Your task to perform on an android device: make emails show in primary in the gmail app Image 0: 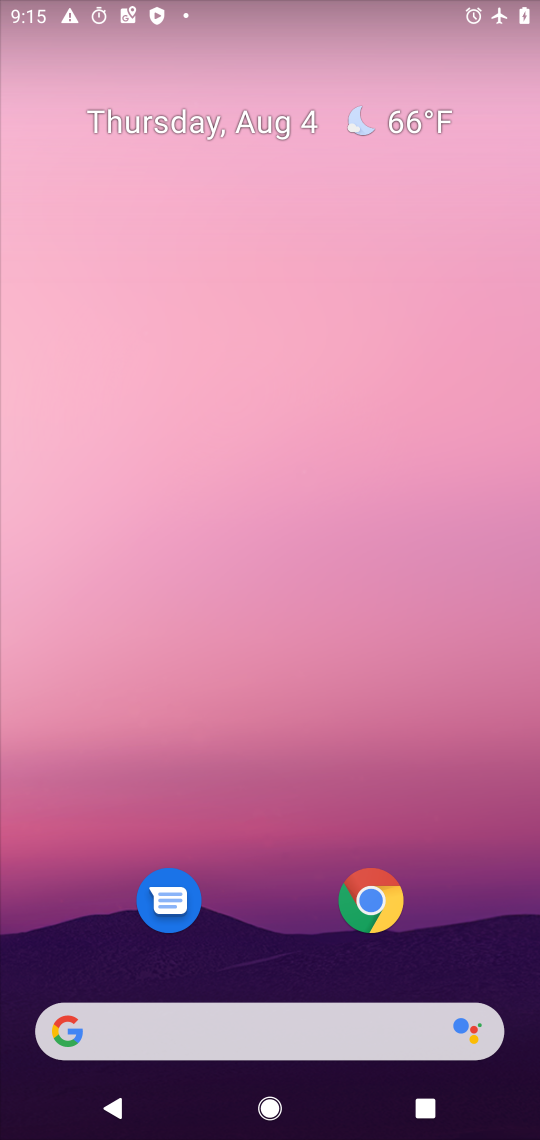
Step 0: drag from (251, 1022) to (284, 31)
Your task to perform on an android device: make emails show in primary in the gmail app Image 1: 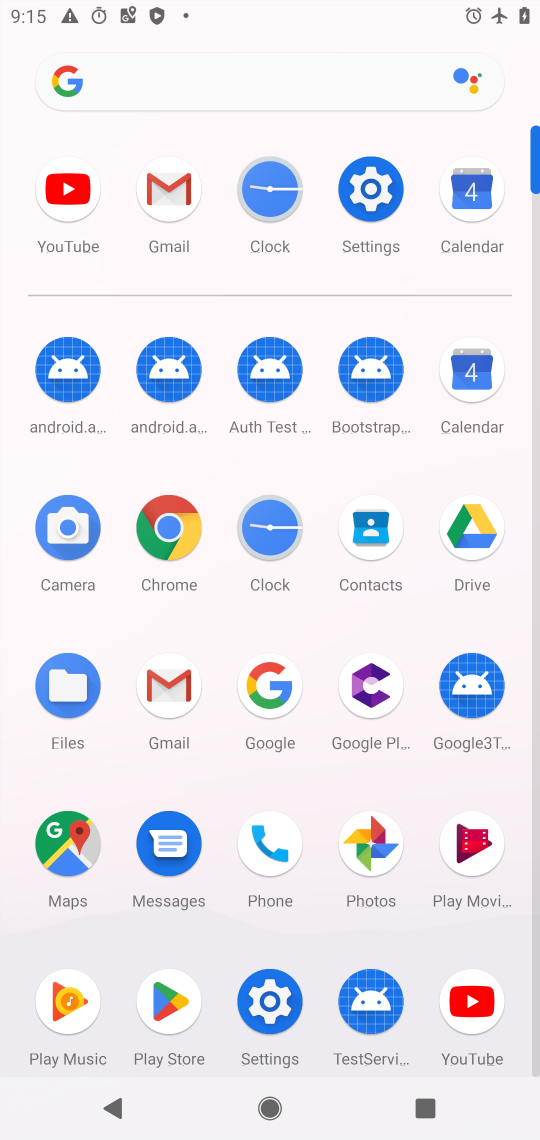
Step 1: click (168, 190)
Your task to perform on an android device: make emails show in primary in the gmail app Image 2: 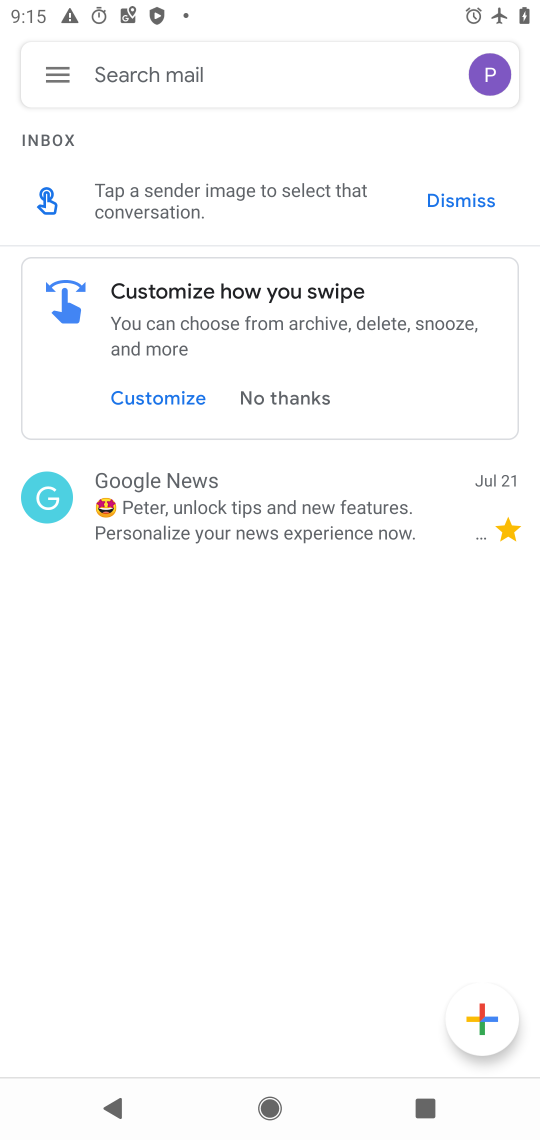
Step 2: click (59, 74)
Your task to perform on an android device: make emails show in primary in the gmail app Image 3: 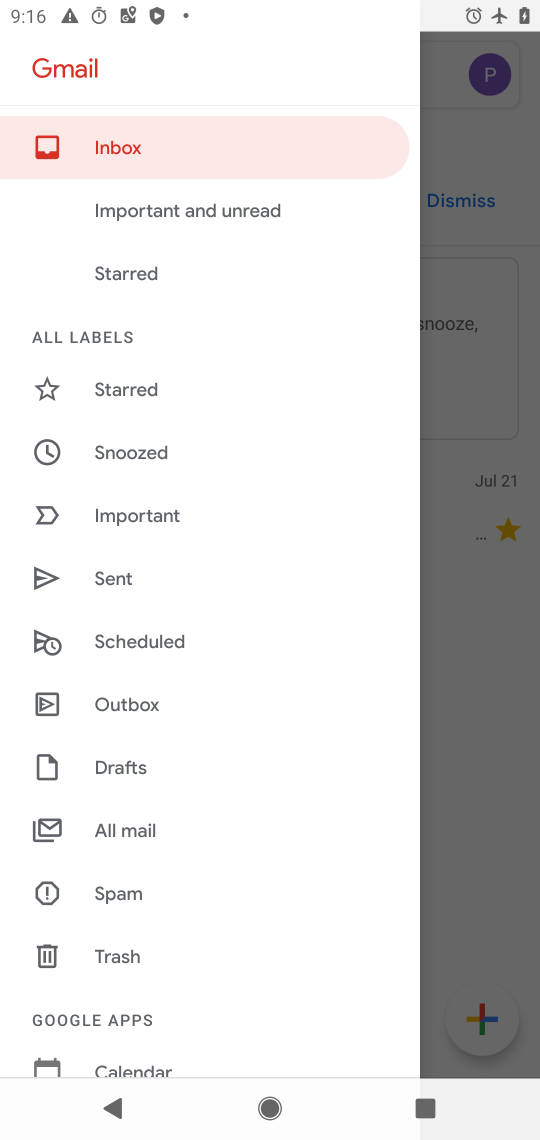
Step 3: drag from (140, 874) to (100, 598)
Your task to perform on an android device: make emails show in primary in the gmail app Image 4: 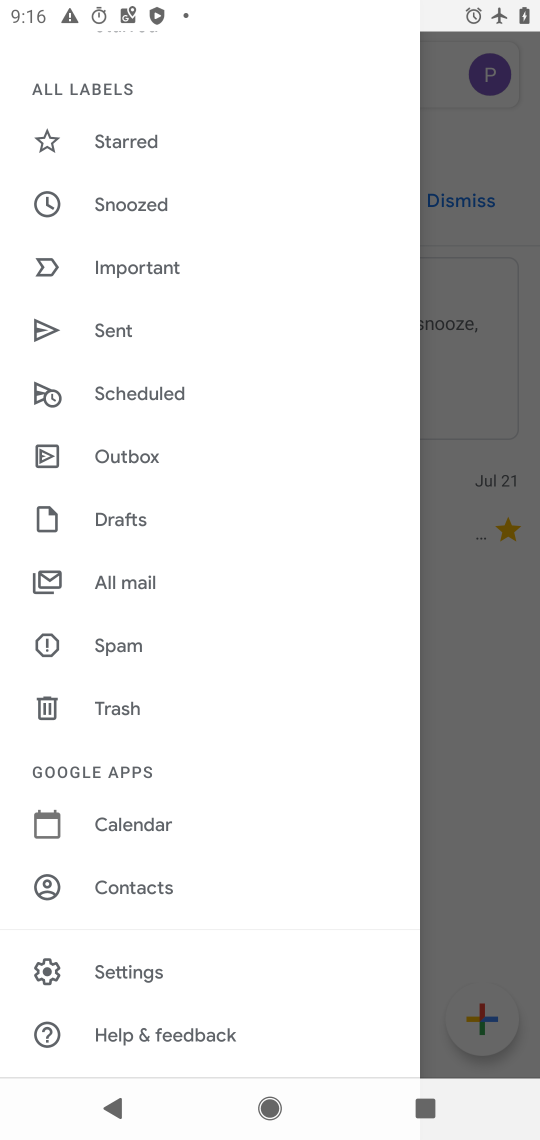
Step 4: drag from (148, 855) to (124, 573)
Your task to perform on an android device: make emails show in primary in the gmail app Image 5: 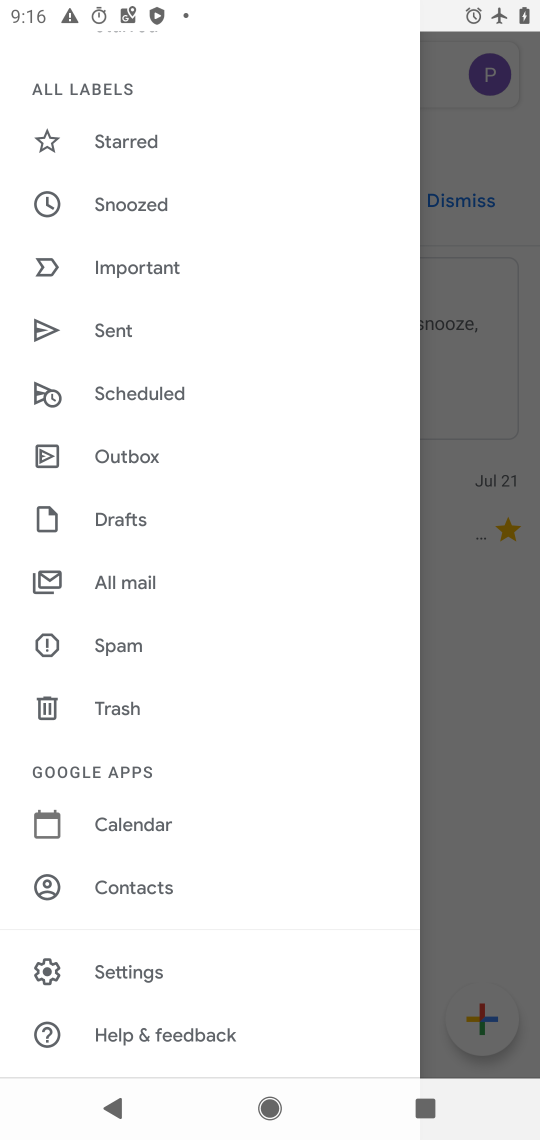
Step 5: click (119, 973)
Your task to perform on an android device: make emails show in primary in the gmail app Image 6: 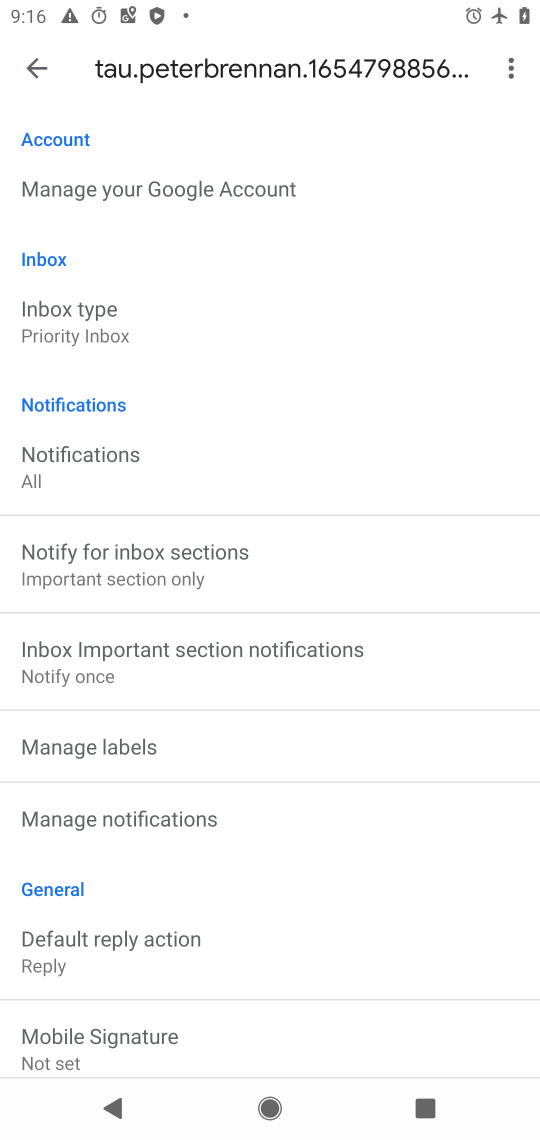
Step 6: click (95, 354)
Your task to perform on an android device: make emails show in primary in the gmail app Image 7: 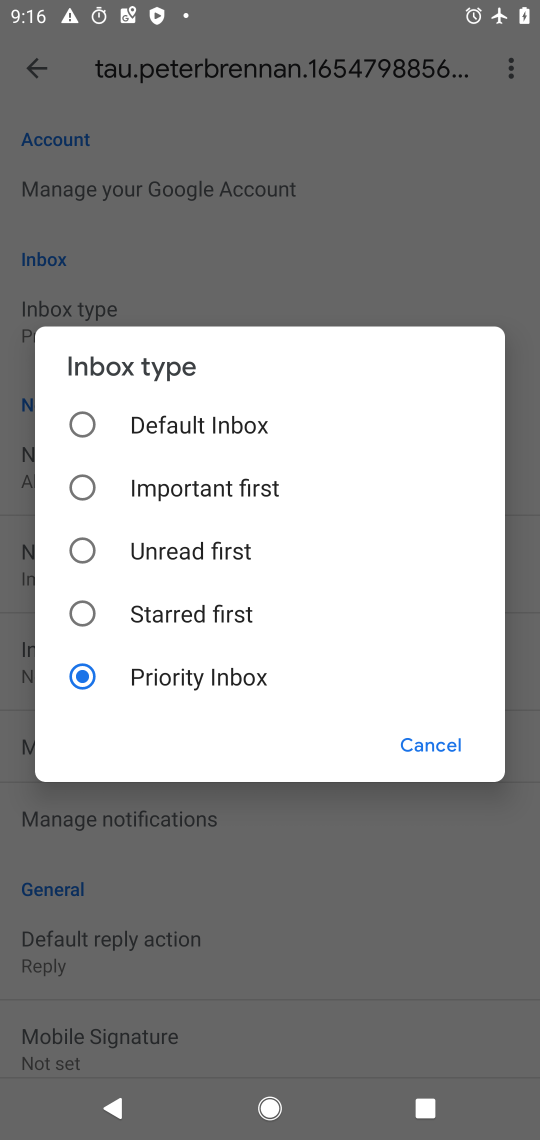
Step 7: click (84, 423)
Your task to perform on an android device: make emails show in primary in the gmail app Image 8: 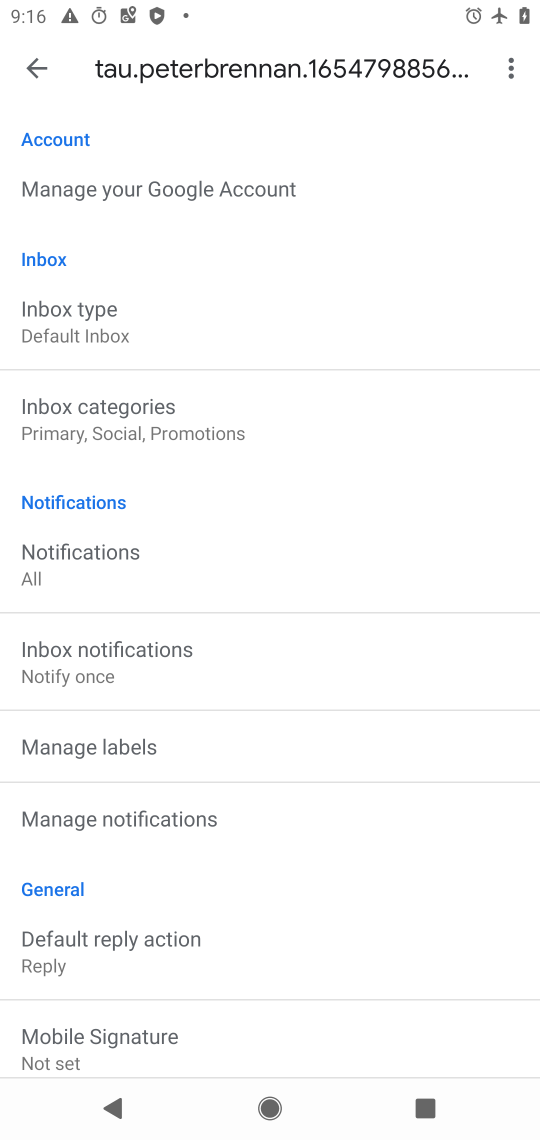
Step 8: click (84, 423)
Your task to perform on an android device: make emails show in primary in the gmail app Image 9: 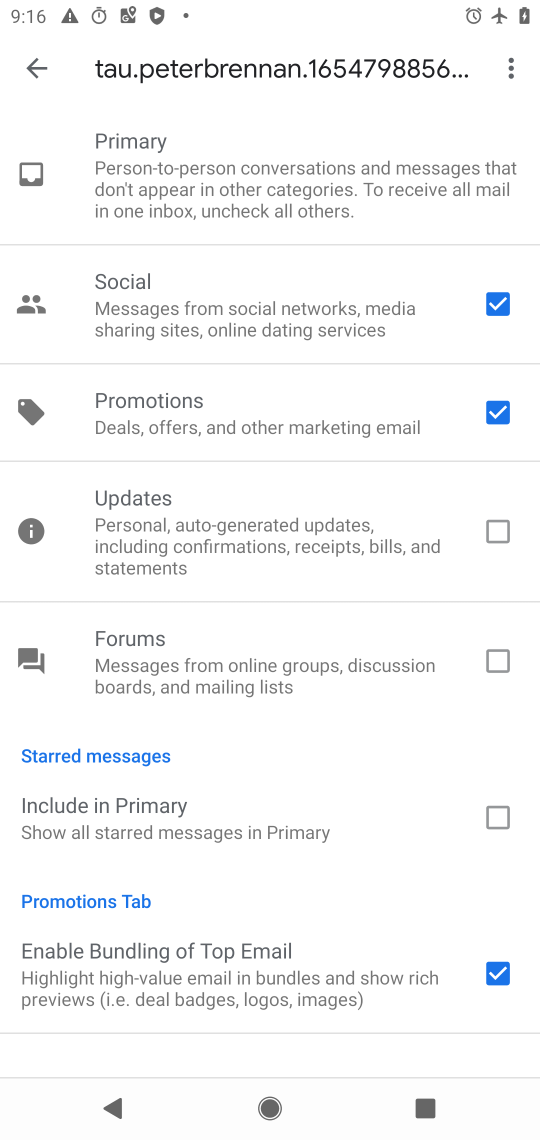
Step 9: click (510, 299)
Your task to perform on an android device: make emails show in primary in the gmail app Image 10: 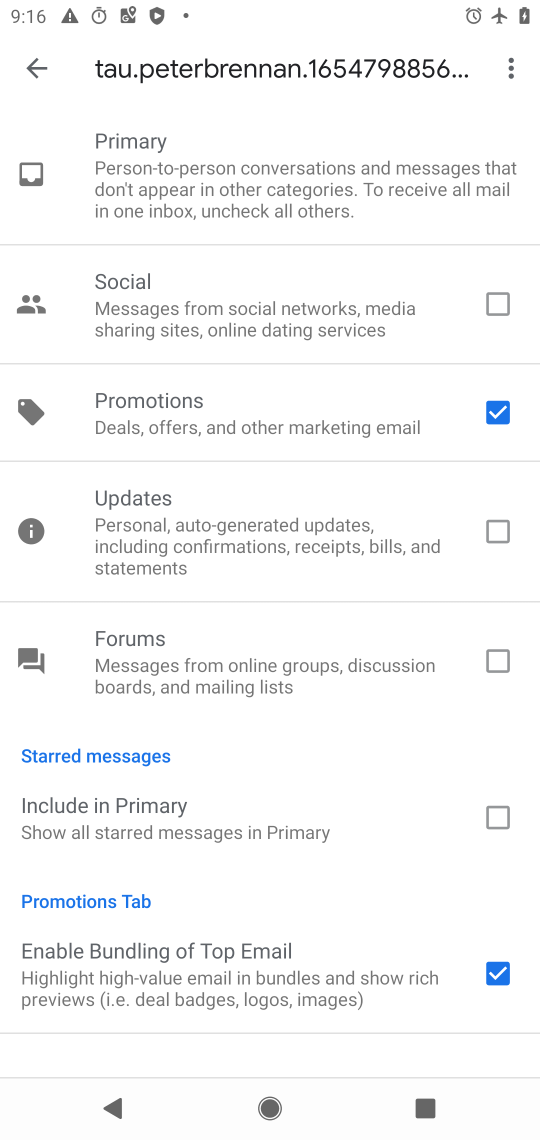
Step 10: click (504, 404)
Your task to perform on an android device: make emails show in primary in the gmail app Image 11: 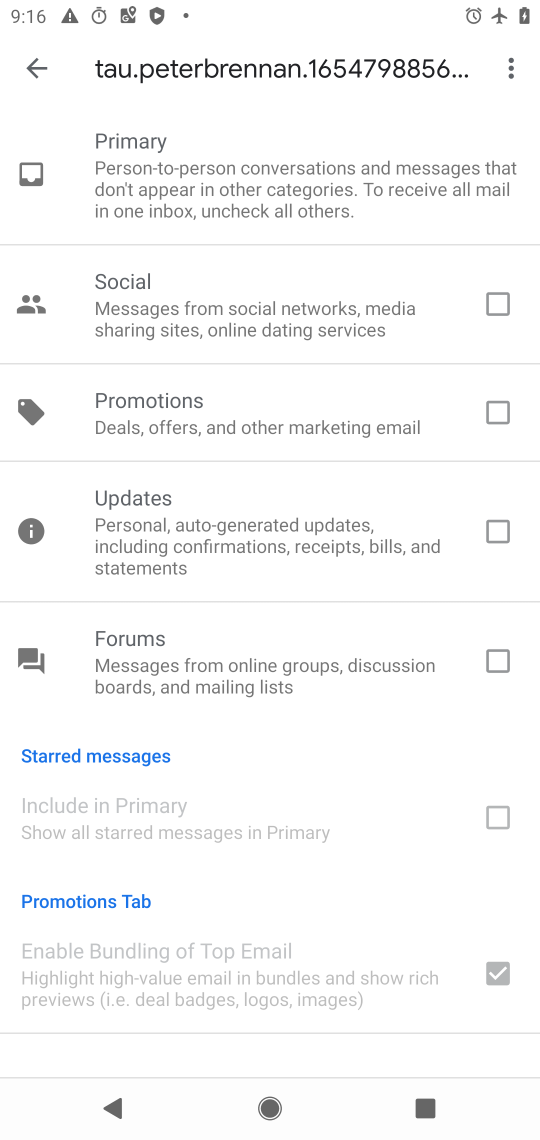
Step 11: task complete